Your task to perform on an android device: manage bookmarks in the chrome app Image 0: 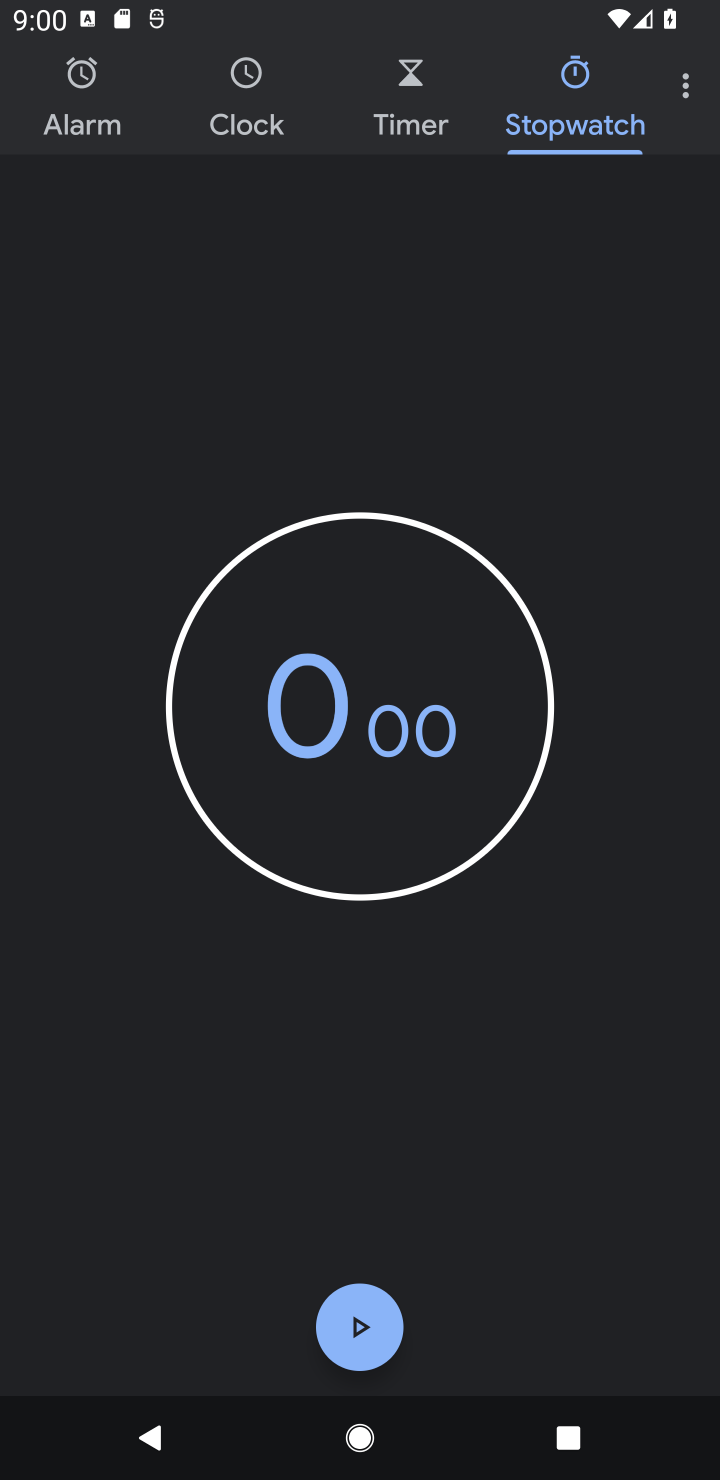
Step 0: press home button
Your task to perform on an android device: manage bookmarks in the chrome app Image 1: 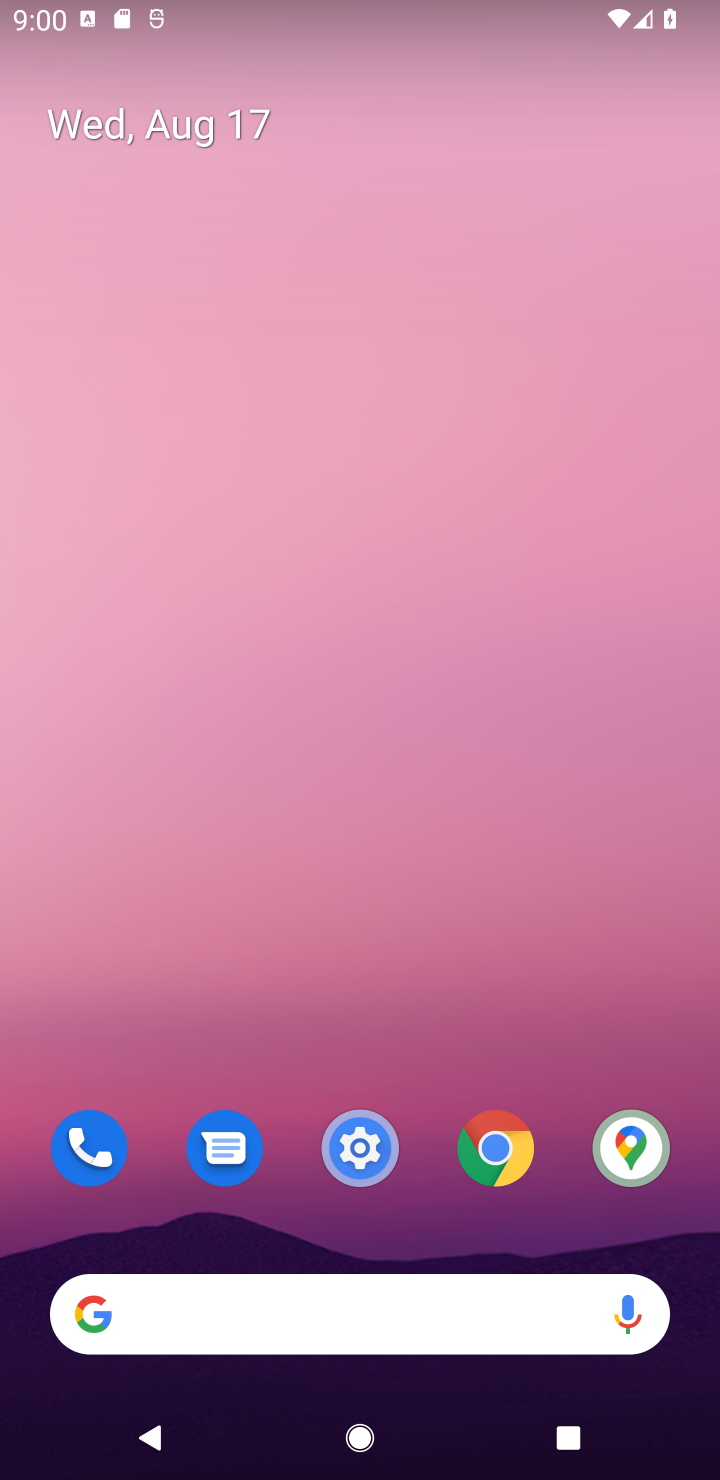
Step 1: click (493, 1150)
Your task to perform on an android device: manage bookmarks in the chrome app Image 2: 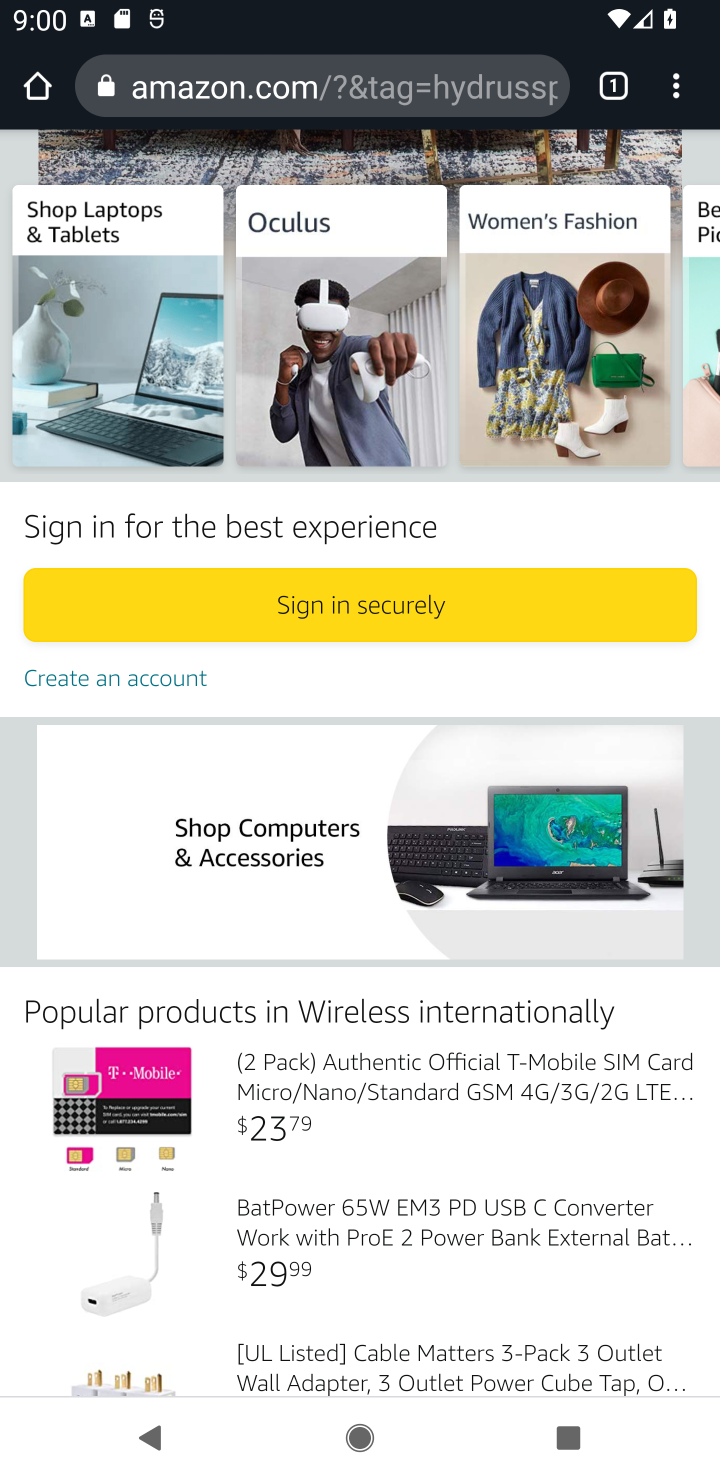
Step 2: click (673, 102)
Your task to perform on an android device: manage bookmarks in the chrome app Image 3: 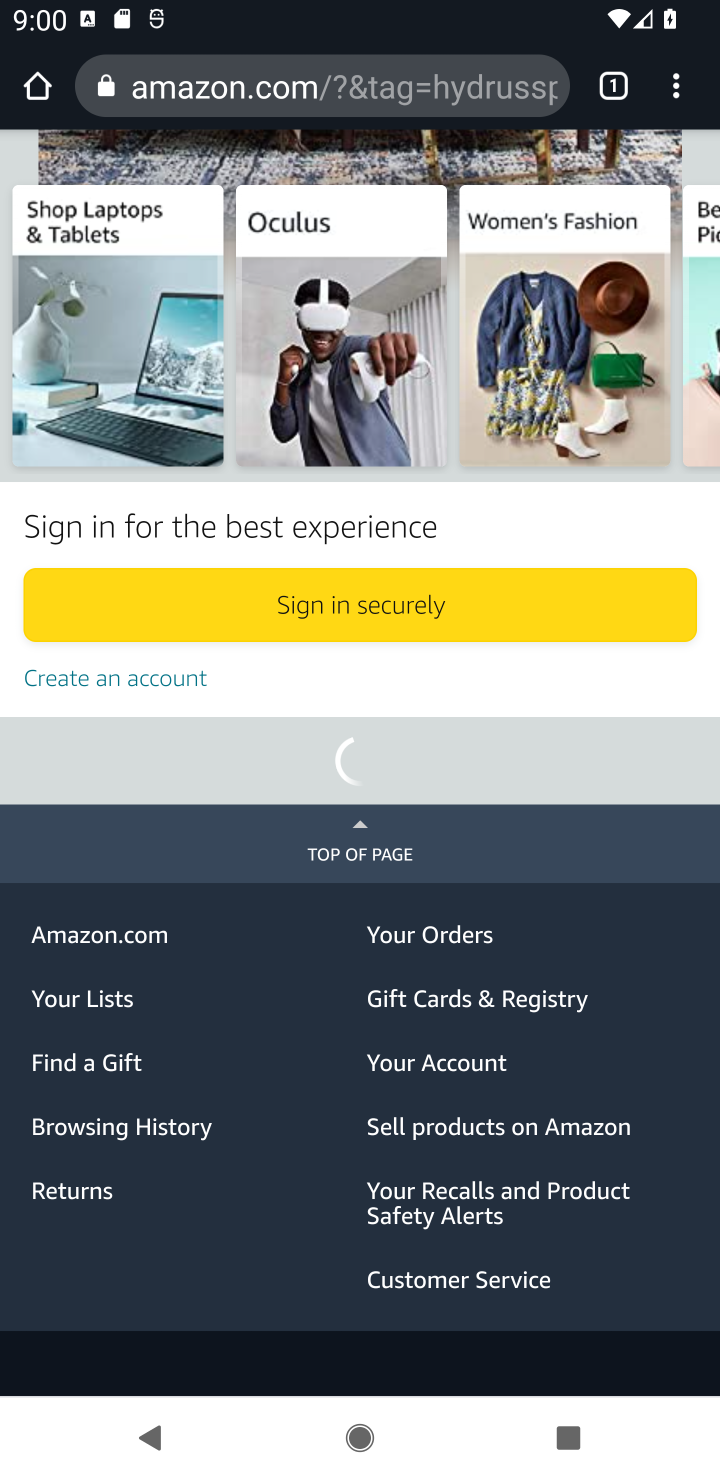
Step 3: click (673, 102)
Your task to perform on an android device: manage bookmarks in the chrome app Image 4: 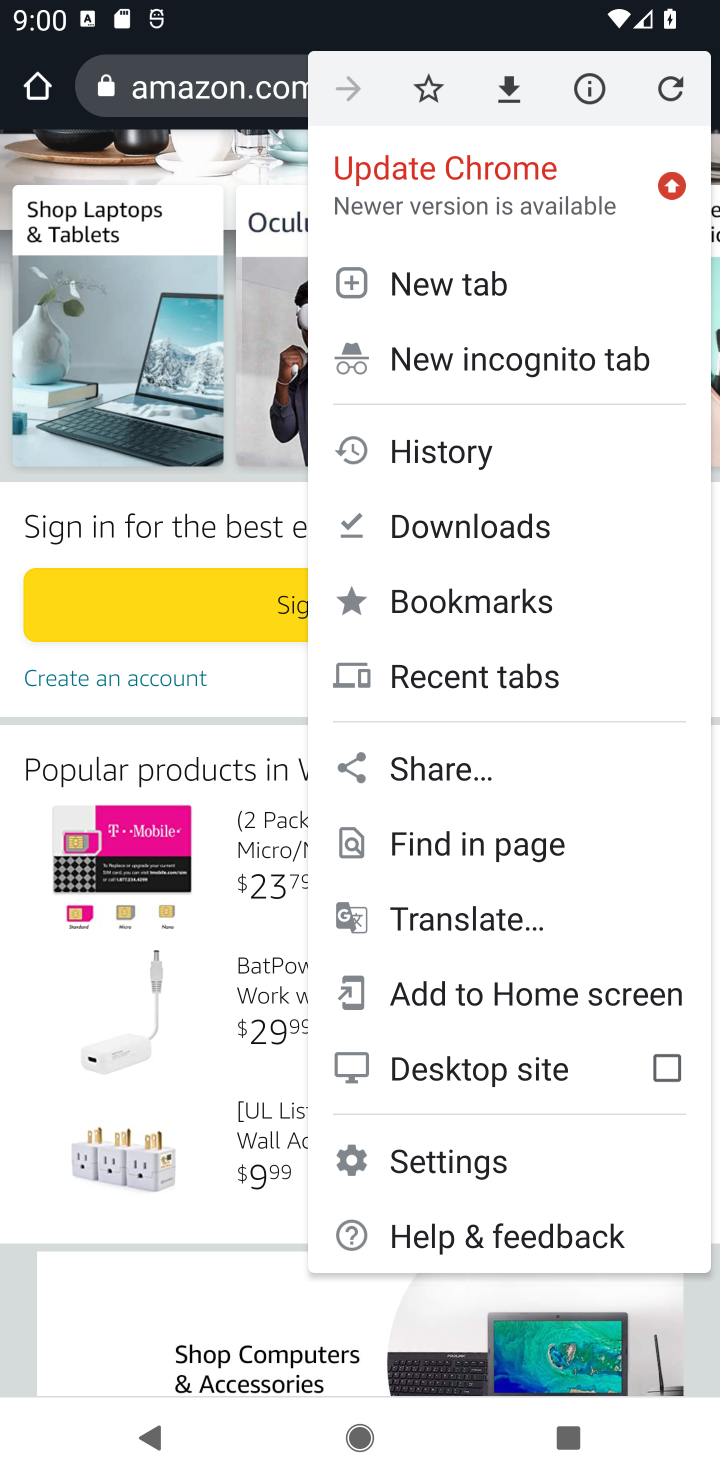
Step 4: click (457, 597)
Your task to perform on an android device: manage bookmarks in the chrome app Image 5: 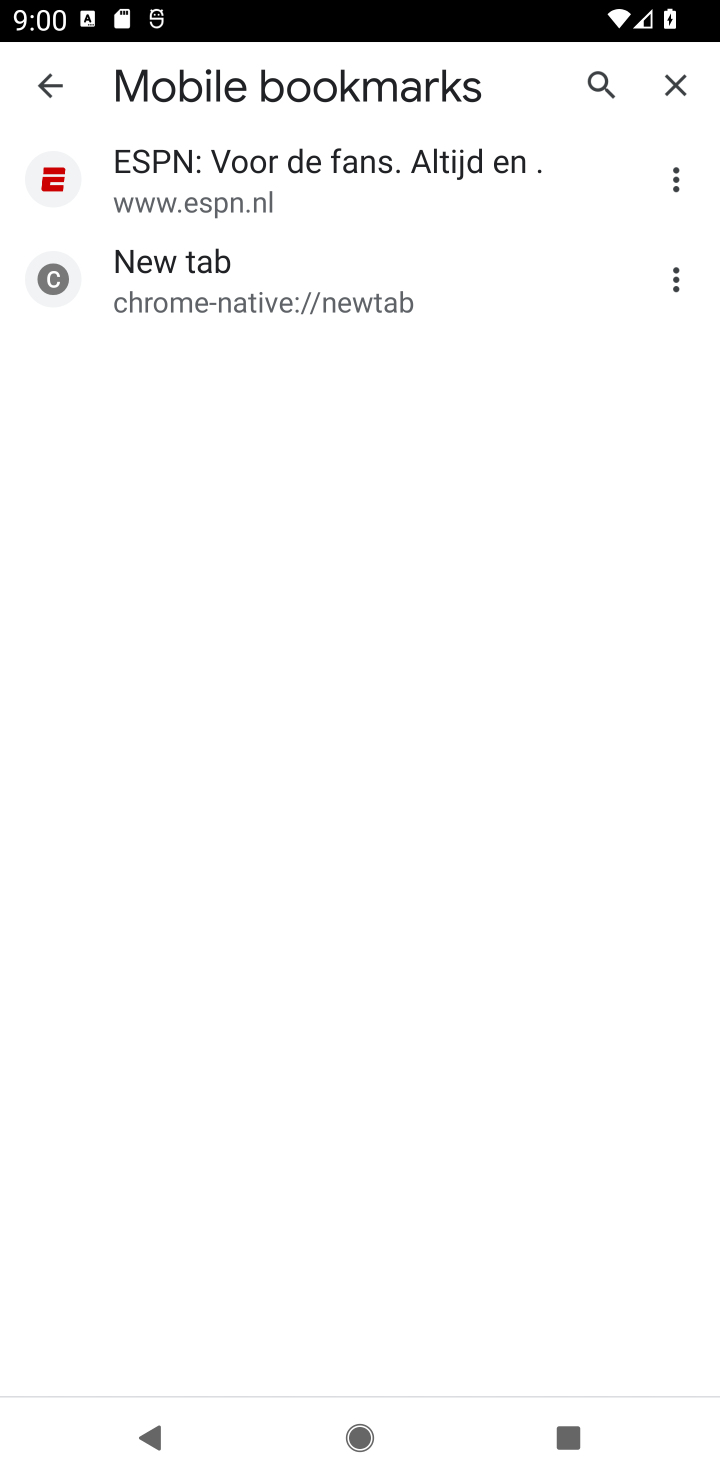
Step 5: click (223, 163)
Your task to perform on an android device: manage bookmarks in the chrome app Image 6: 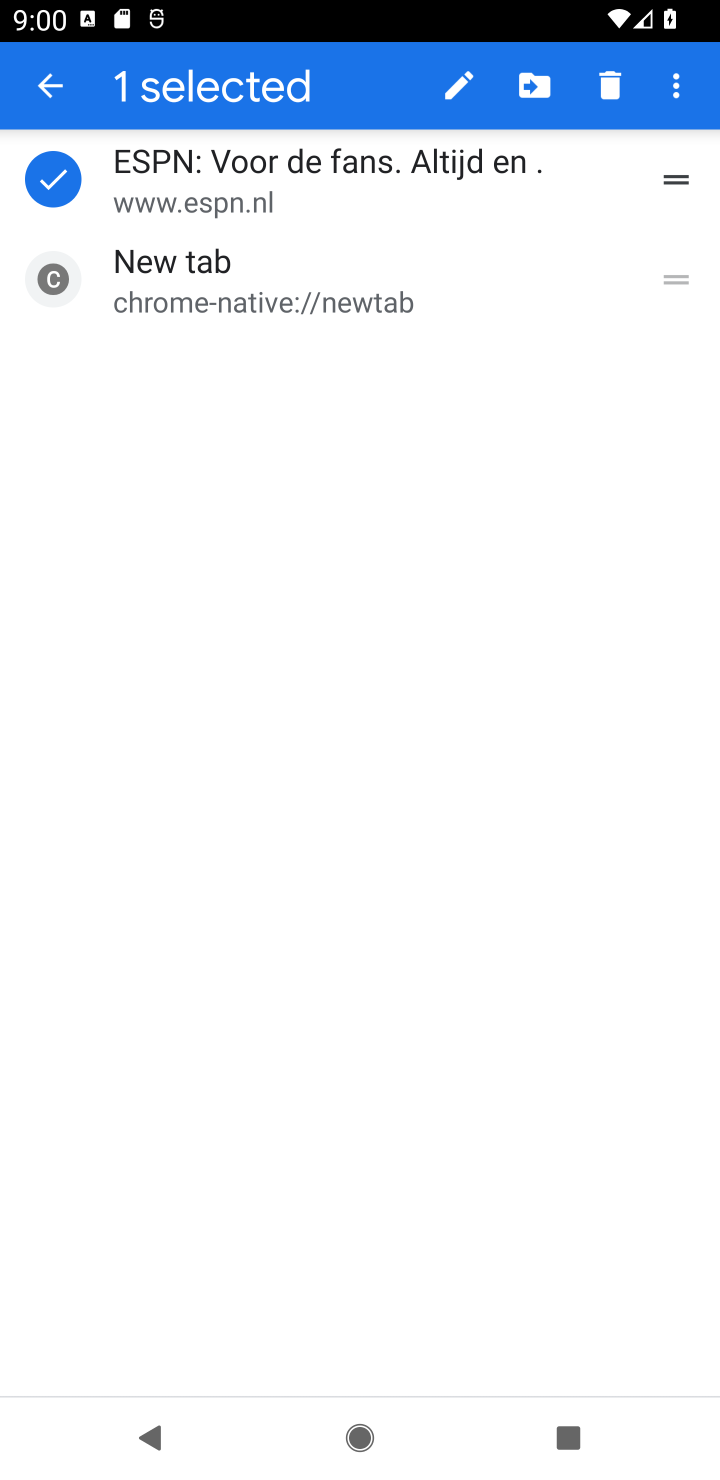
Step 6: click (535, 93)
Your task to perform on an android device: manage bookmarks in the chrome app Image 7: 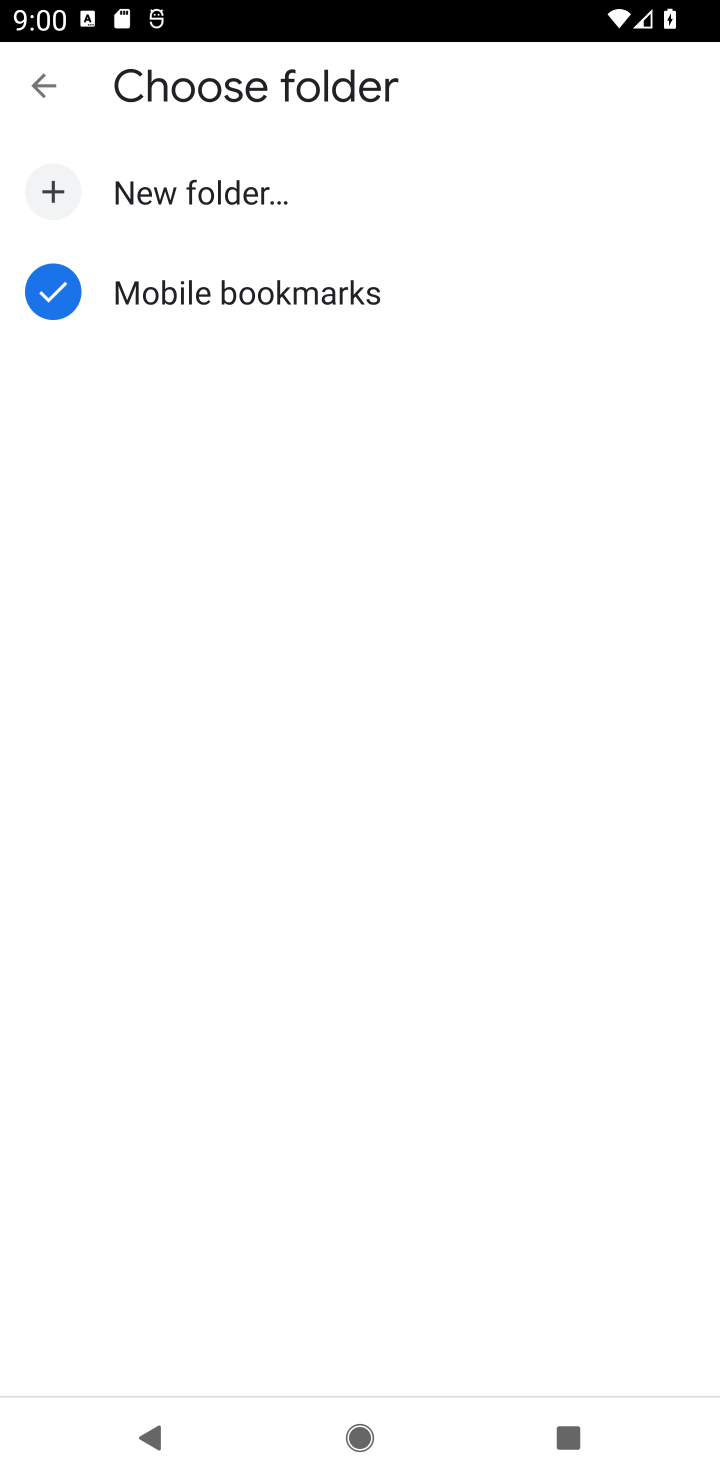
Step 7: click (58, 195)
Your task to perform on an android device: manage bookmarks in the chrome app Image 8: 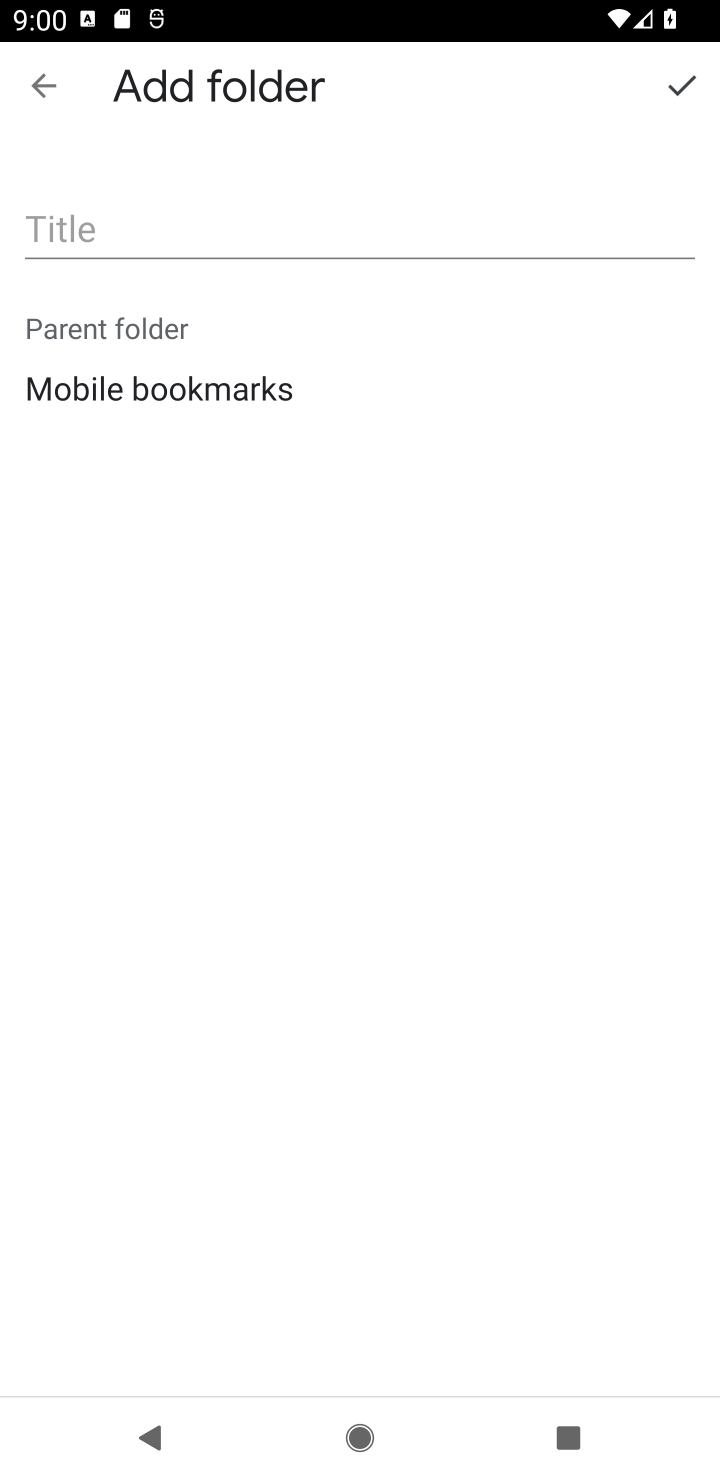
Step 8: click (122, 217)
Your task to perform on an android device: manage bookmarks in the chrome app Image 9: 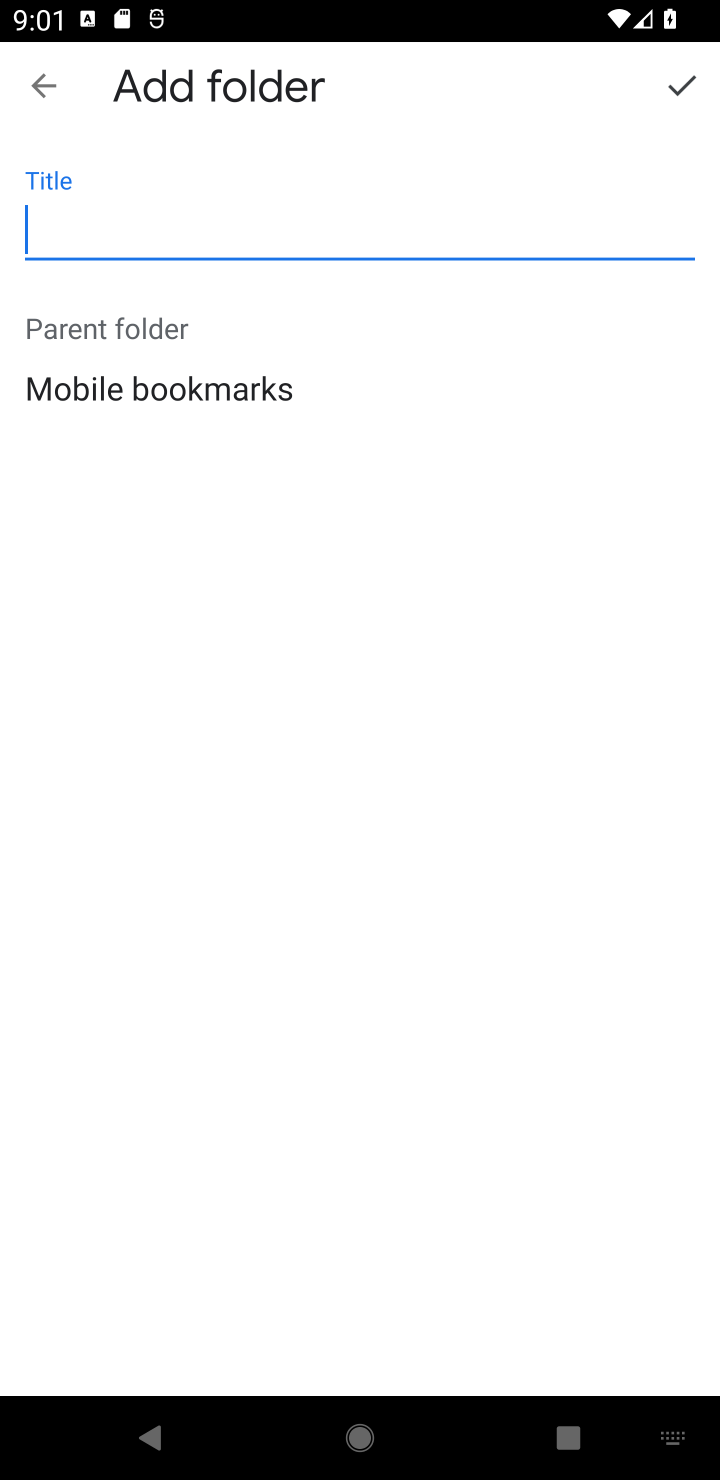
Step 9: type "tvff"
Your task to perform on an android device: manage bookmarks in the chrome app Image 10: 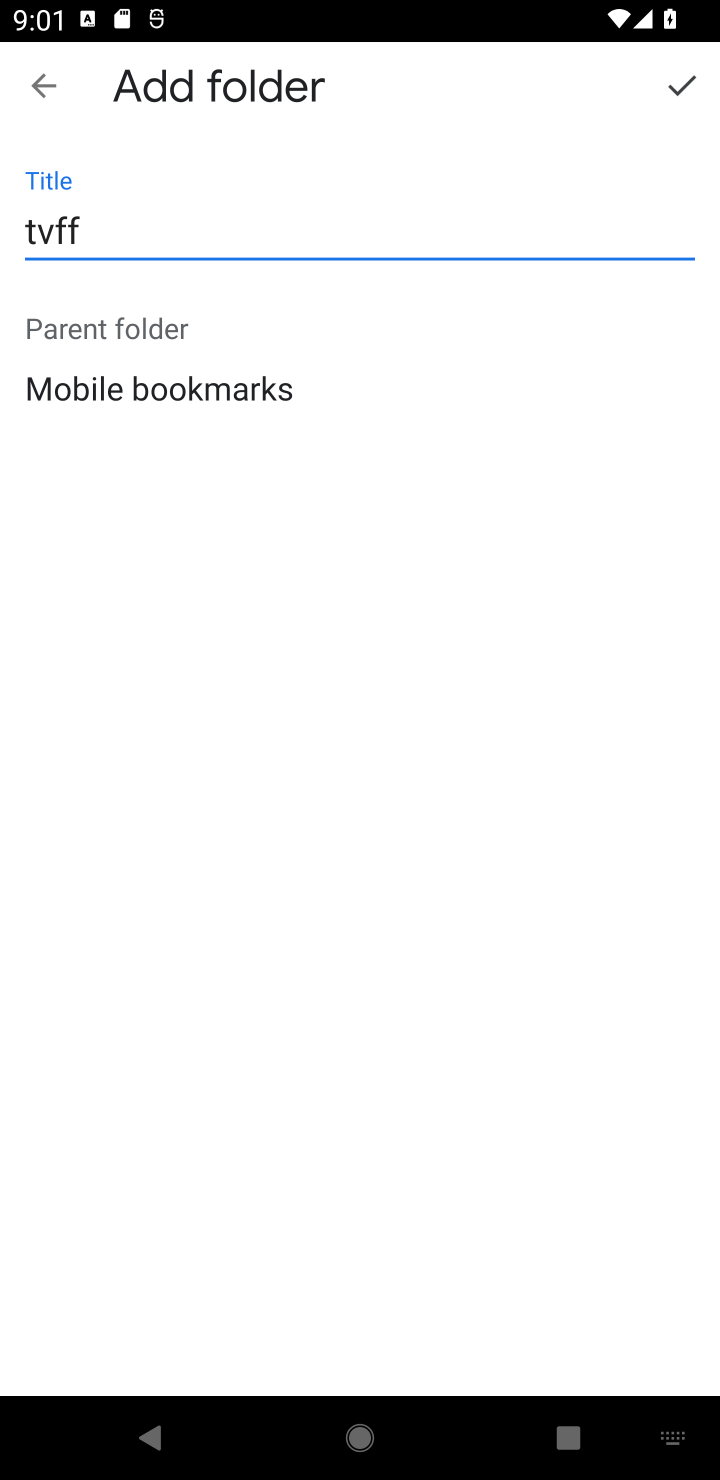
Step 10: click (675, 84)
Your task to perform on an android device: manage bookmarks in the chrome app Image 11: 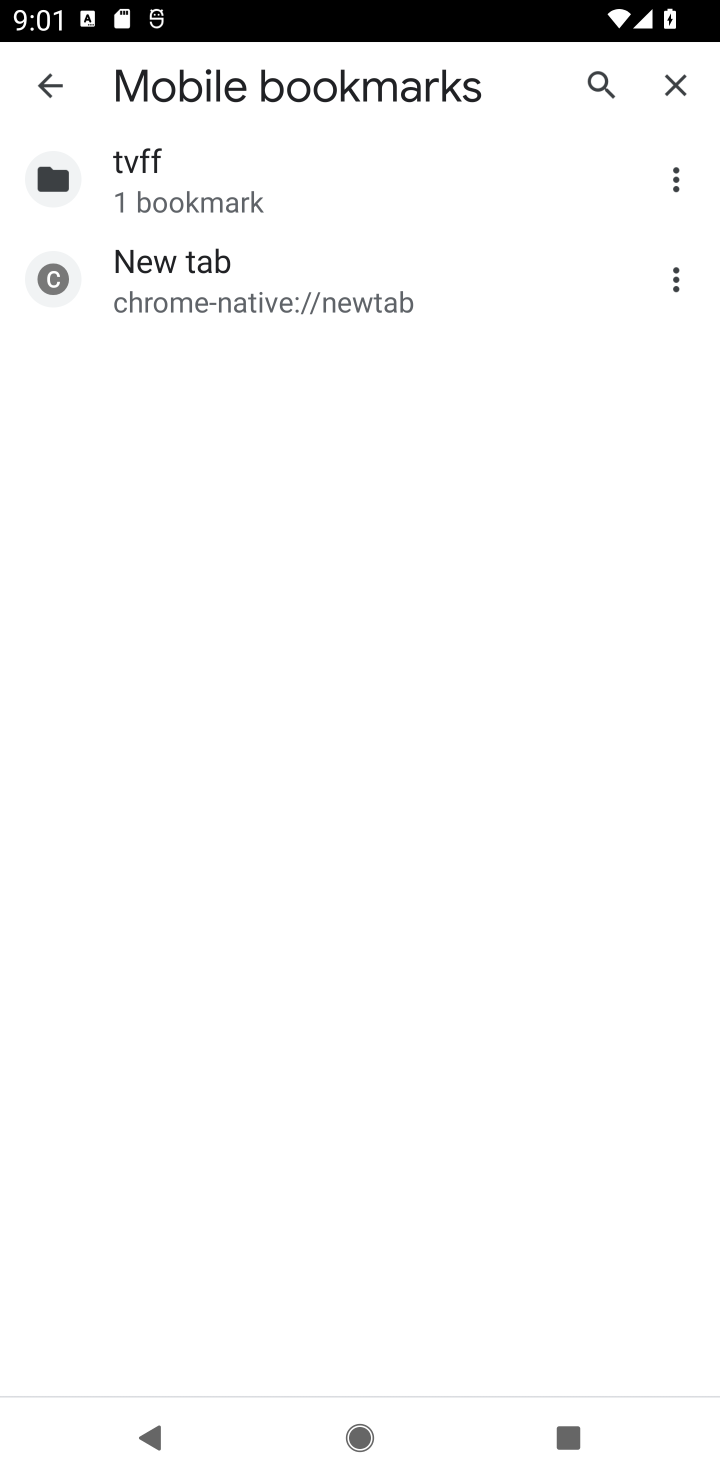
Step 11: task complete